Your task to perform on an android device: turn off picture-in-picture Image 0: 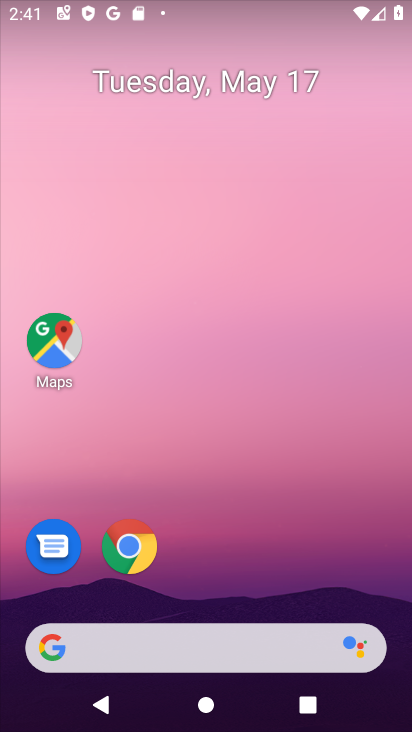
Step 0: press home button
Your task to perform on an android device: turn off picture-in-picture Image 1: 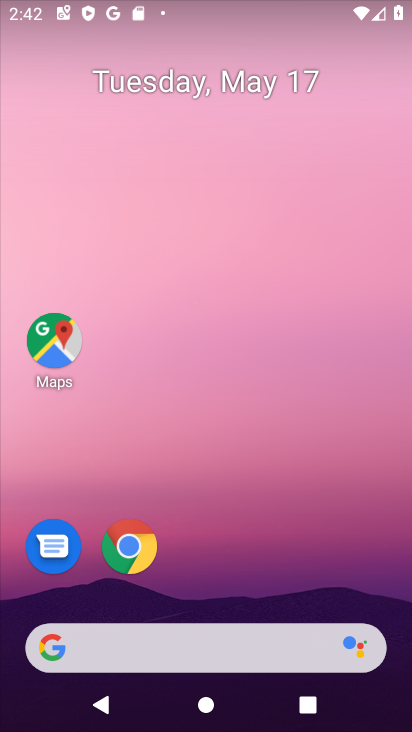
Step 1: click (136, 555)
Your task to perform on an android device: turn off picture-in-picture Image 2: 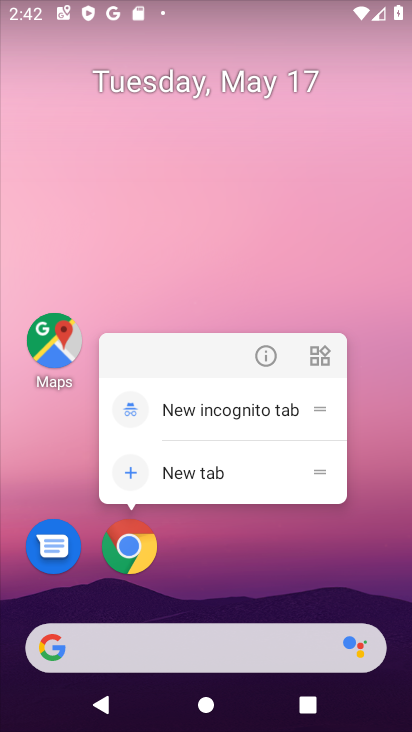
Step 2: click (259, 352)
Your task to perform on an android device: turn off picture-in-picture Image 3: 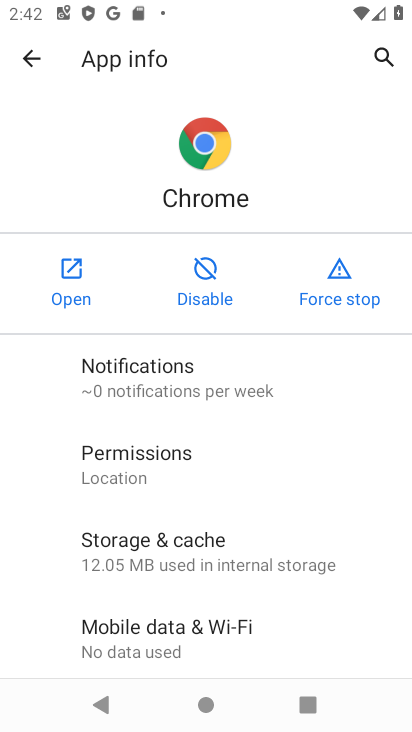
Step 3: drag from (305, 613) to (292, 427)
Your task to perform on an android device: turn off picture-in-picture Image 4: 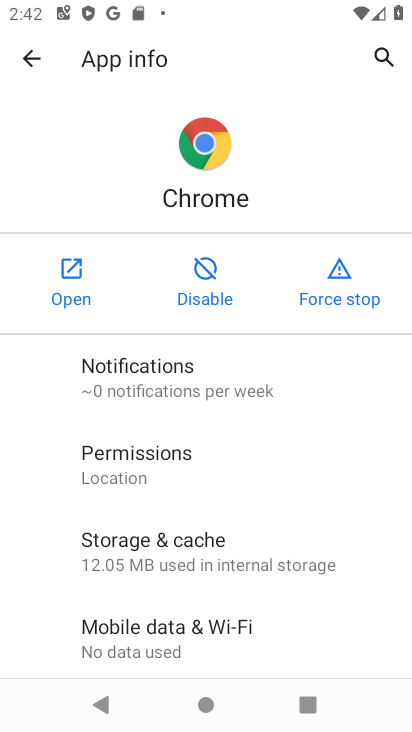
Step 4: drag from (334, 614) to (316, 440)
Your task to perform on an android device: turn off picture-in-picture Image 5: 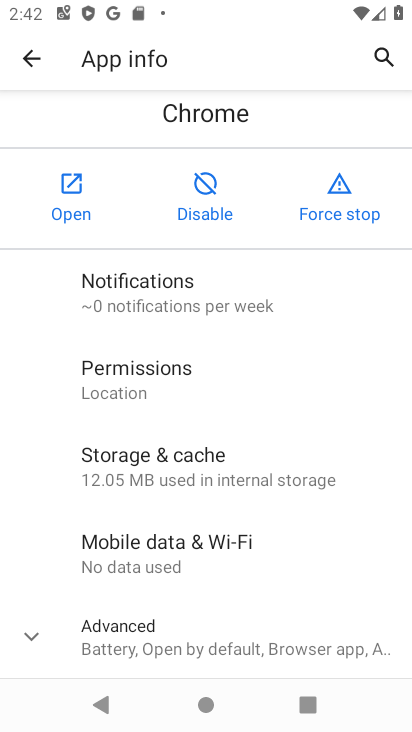
Step 5: drag from (318, 624) to (307, 464)
Your task to perform on an android device: turn off picture-in-picture Image 6: 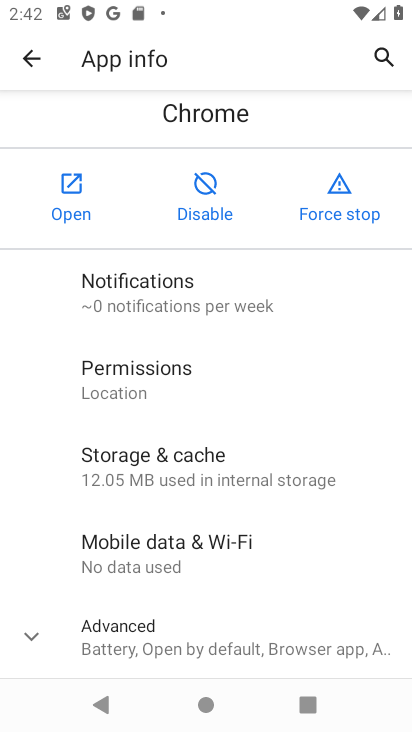
Step 6: drag from (312, 542) to (310, 468)
Your task to perform on an android device: turn off picture-in-picture Image 7: 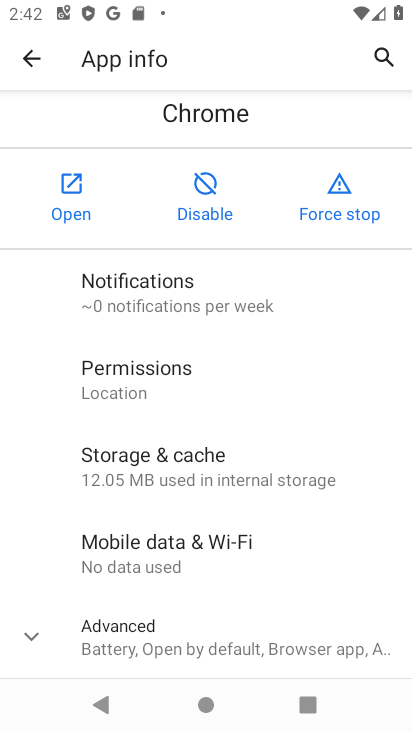
Step 7: click (36, 642)
Your task to perform on an android device: turn off picture-in-picture Image 8: 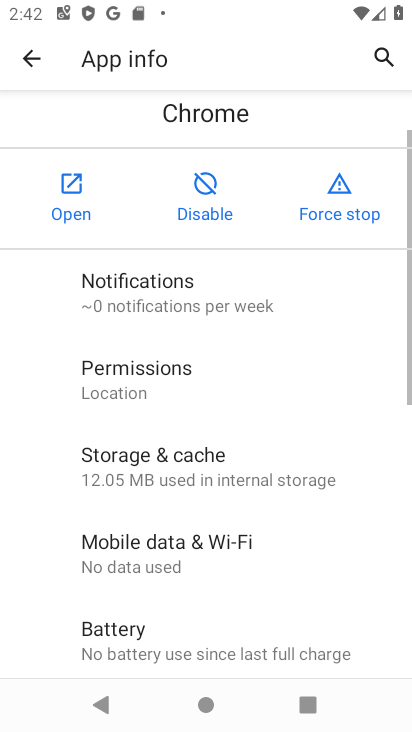
Step 8: drag from (325, 608) to (309, 433)
Your task to perform on an android device: turn off picture-in-picture Image 9: 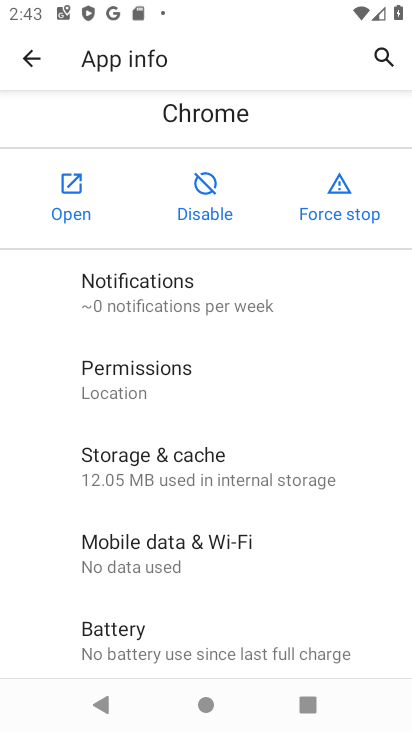
Step 9: drag from (344, 628) to (350, 465)
Your task to perform on an android device: turn off picture-in-picture Image 10: 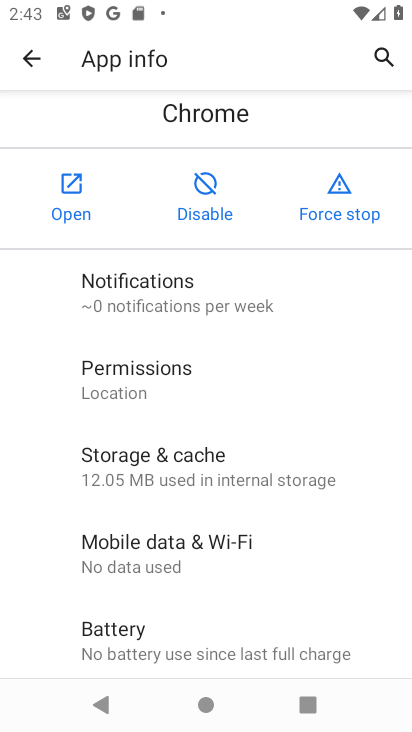
Step 10: drag from (363, 589) to (373, 440)
Your task to perform on an android device: turn off picture-in-picture Image 11: 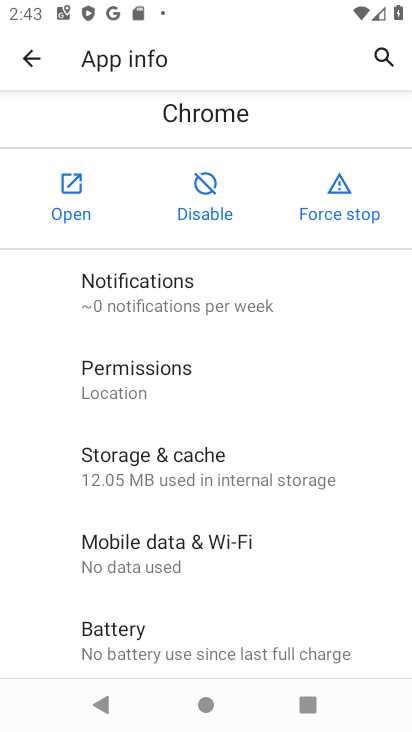
Step 11: drag from (332, 623) to (345, 432)
Your task to perform on an android device: turn off picture-in-picture Image 12: 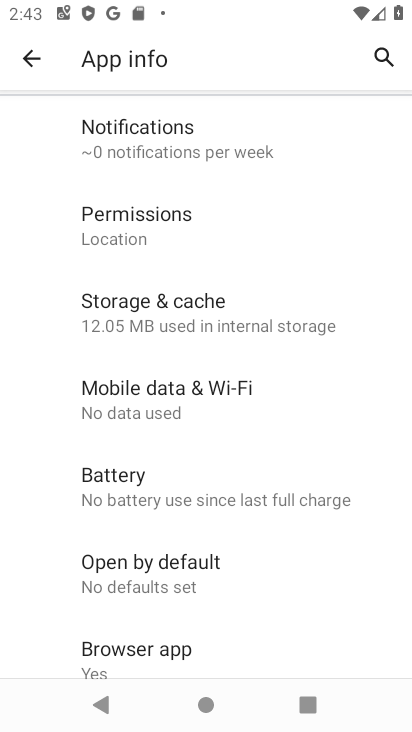
Step 12: drag from (351, 606) to (354, 405)
Your task to perform on an android device: turn off picture-in-picture Image 13: 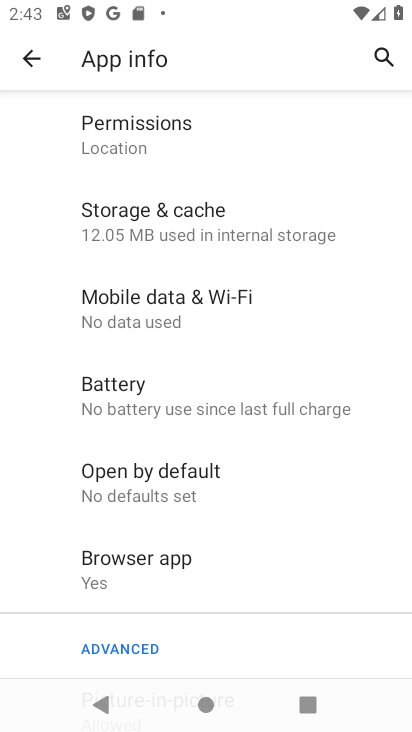
Step 13: drag from (375, 589) to (376, 344)
Your task to perform on an android device: turn off picture-in-picture Image 14: 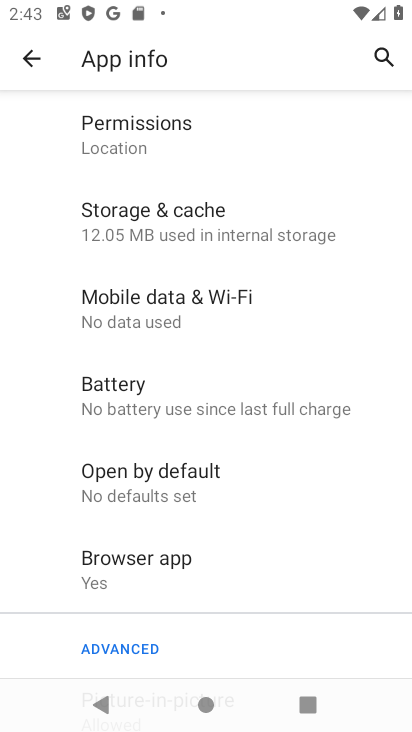
Step 14: drag from (340, 640) to (361, 314)
Your task to perform on an android device: turn off picture-in-picture Image 15: 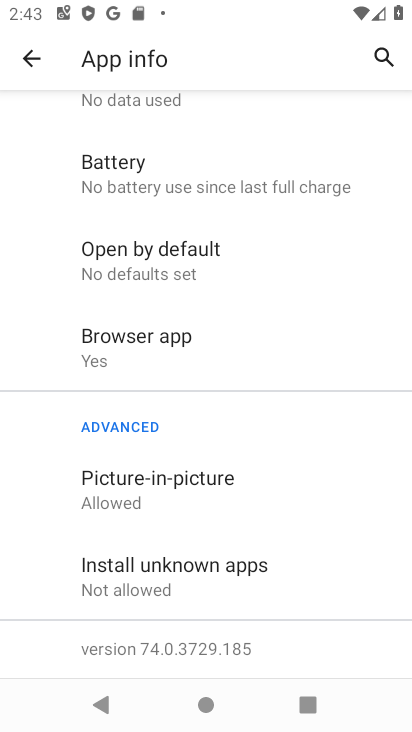
Step 15: click (126, 490)
Your task to perform on an android device: turn off picture-in-picture Image 16: 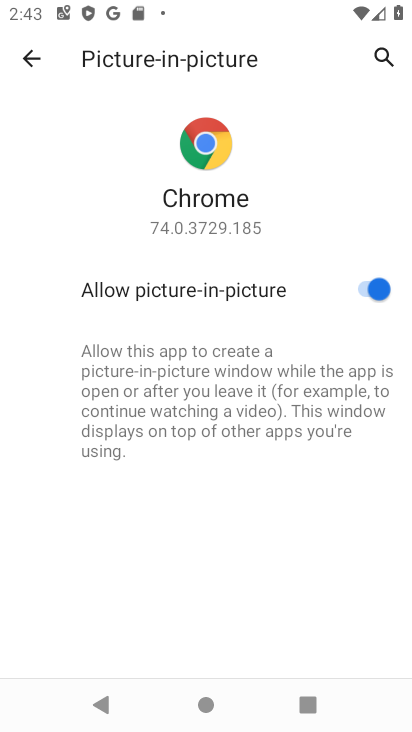
Step 16: click (361, 289)
Your task to perform on an android device: turn off picture-in-picture Image 17: 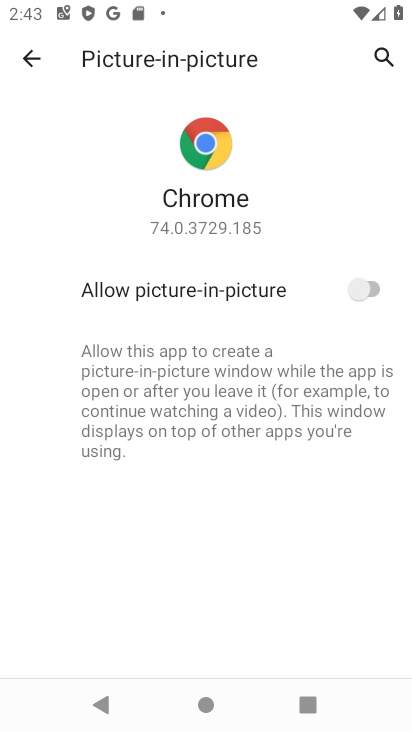
Step 17: task complete